Your task to perform on an android device: turn off wifi Image 0: 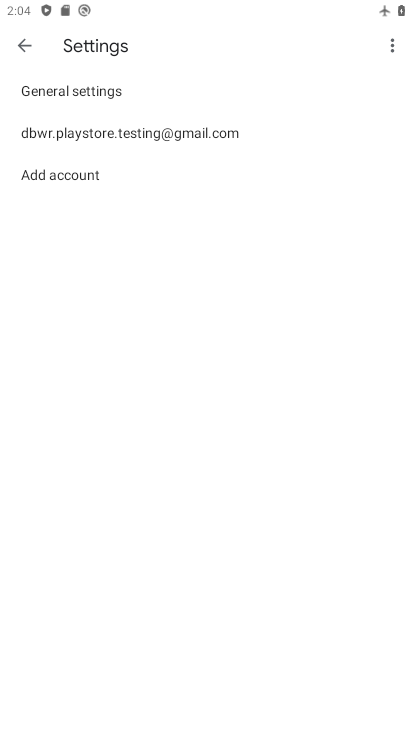
Step 0: click (308, 402)
Your task to perform on an android device: turn off wifi Image 1: 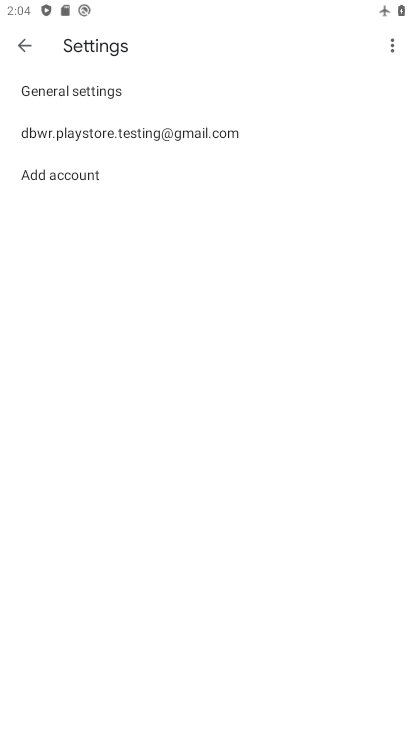
Step 1: press home button
Your task to perform on an android device: turn off wifi Image 2: 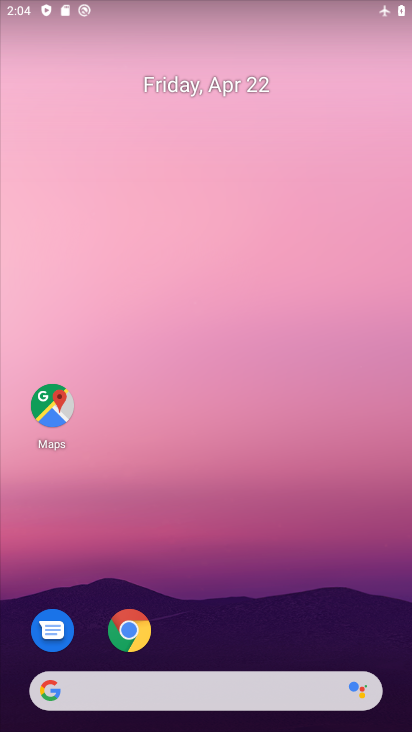
Step 2: drag from (320, 616) to (279, 166)
Your task to perform on an android device: turn off wifi Image 3: 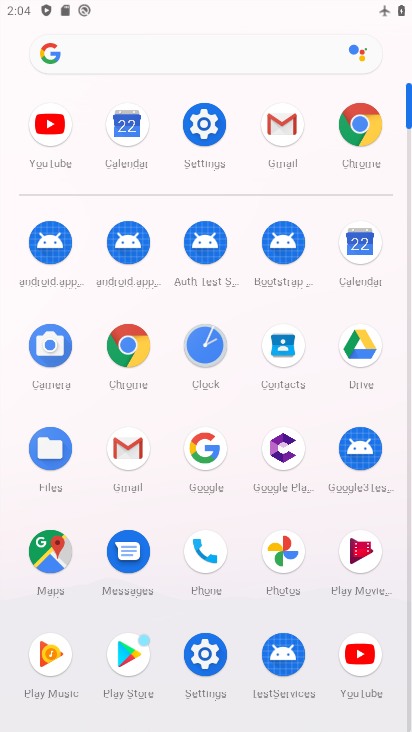
Step 3: click (208, 136)
Your task to perform on an android device: turn off wifi Image 4: 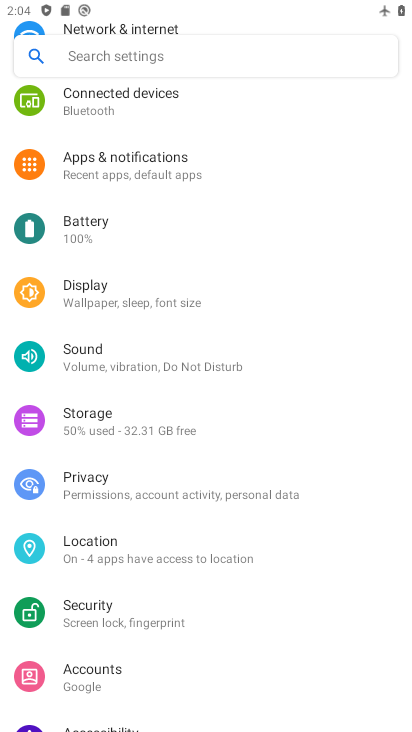
Step 4: drag from (181, 219) to (171, 520)
Your task to perform on an android device: turn off wifi Image 5: 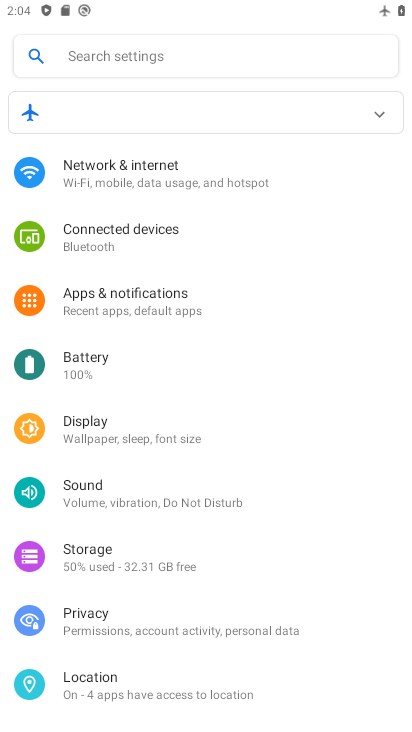
Step 5: drag from (200, 584) to (195, 275)
Your task to perform on an android device: turn off wifi Image 6: 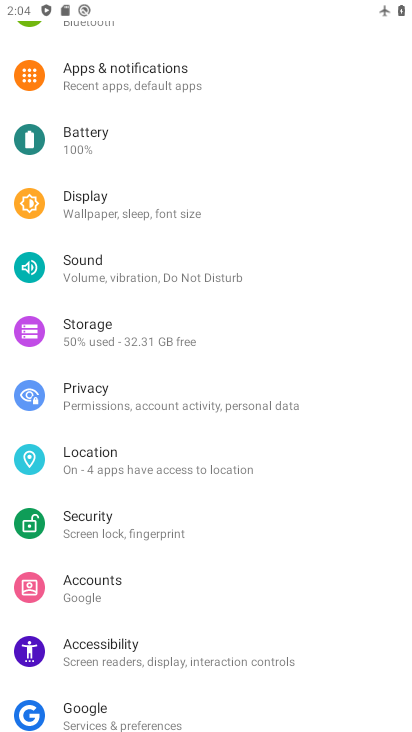
Step 6: drag from (217, 194) to (245, 527)
Your task to perform on an android device: turn off wifi Image 7: 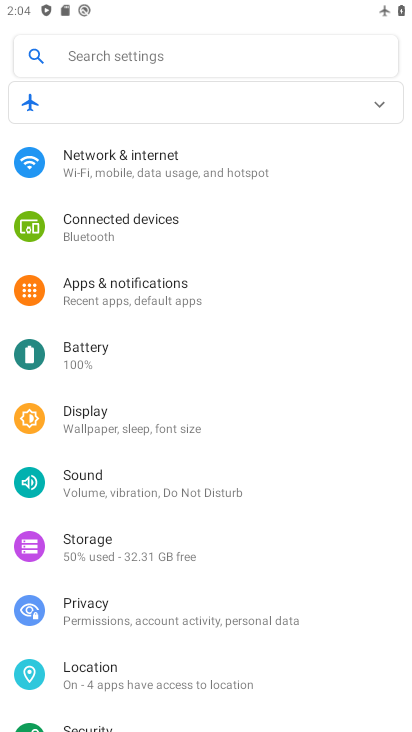
Step 7: click (172, 169)
Your task to perform on an android device: turn off wifi Image 8: 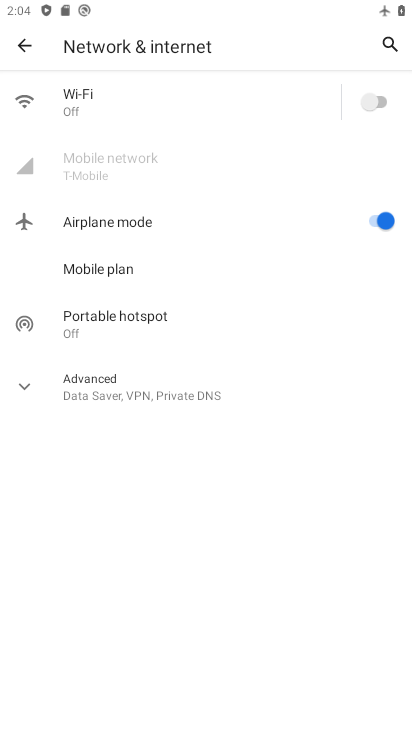
Step 8: task complete